Your task to perform on an android device: Open calendar and show me the second week of next month Image 0: 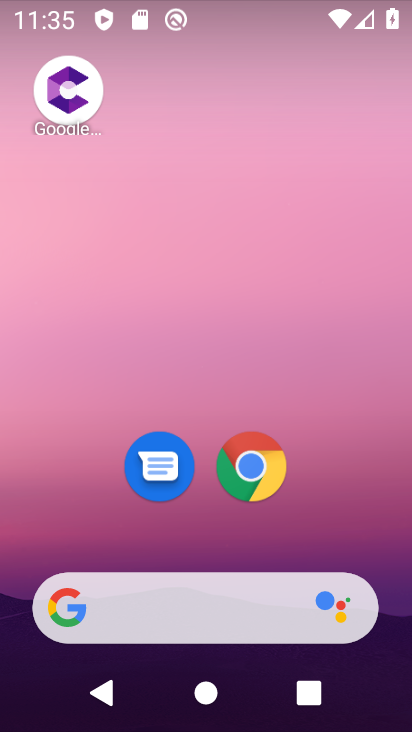
Step 0: drag from (330, 525) to (313, 137)
Your task to perform on an android device: Open calendar and show me the second week of next month Image 1: 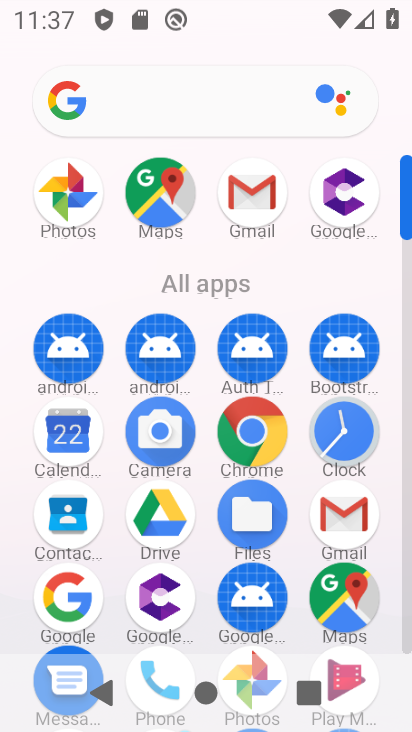
Step 1: click (93, 417)
Your task to perform on an android device: Open calendar and show me the second week of next month Image 2: 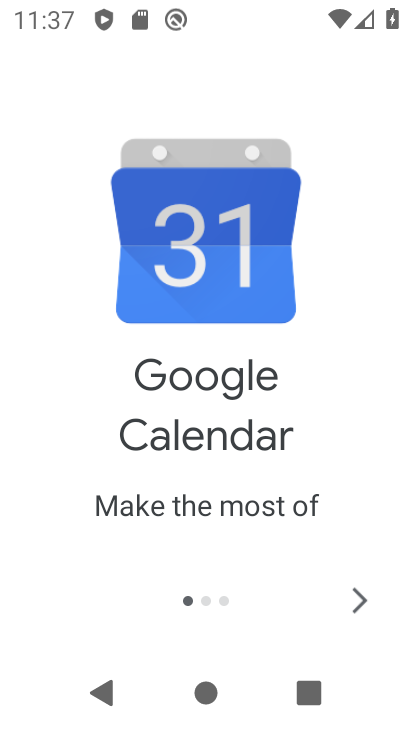
Step 2: click (361, 578)
Your task to perform on an android device: Open calendar and show me the second week of next month Image 3: 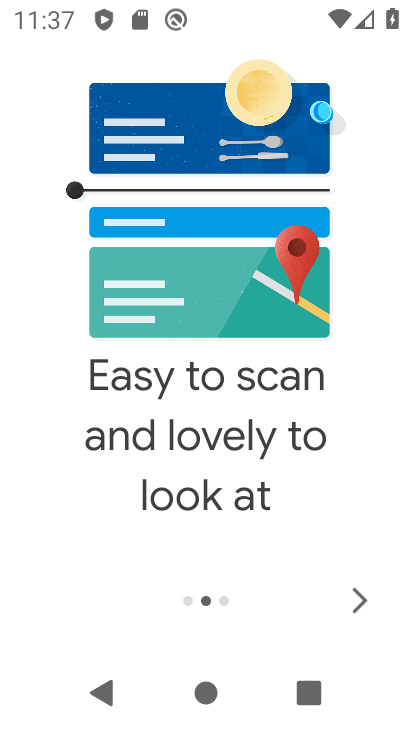
Step 3: click (361, 578)
Your task to perform on an android device: Open calendar and show me the second week of next month Image 4: 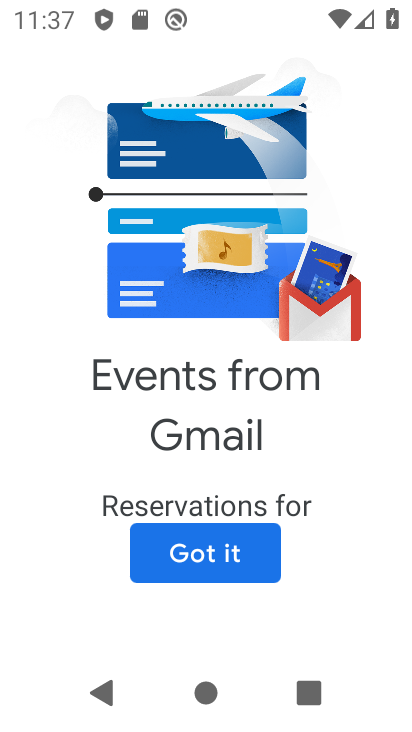
Step 4: click (234, 557)
Your task to perform on an android device: Open calendar and show me the second week of next month Image 5: 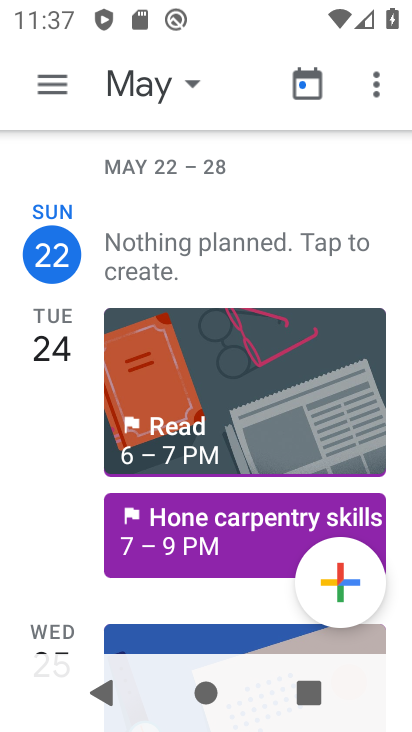
Step 5: click (191, 79)
Your task to perform on an android device: Open calendar and show me the second week of next month Image 6: 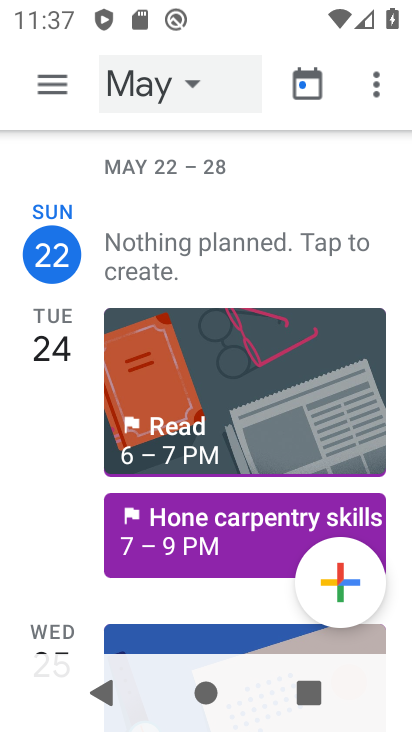
Step 6: drag from (215, 260) to (218, 296)
Your task to perform on an android device: Open calendar and show me the second week of next month Image 7: 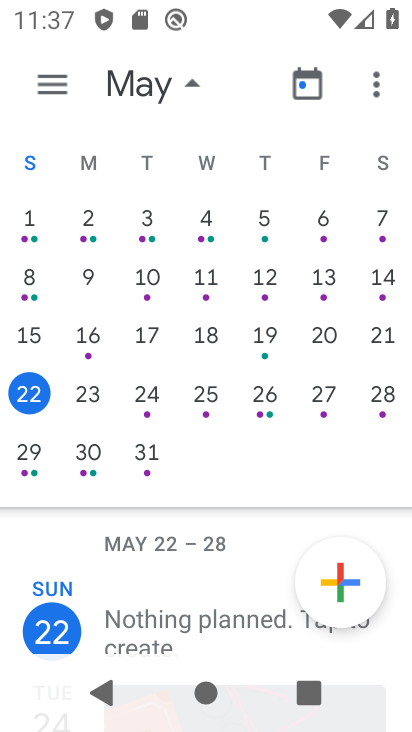
Step 7: click (99, 405)
Your task to perform on an android device: Open calendar and show me the second week of next month Image 8: 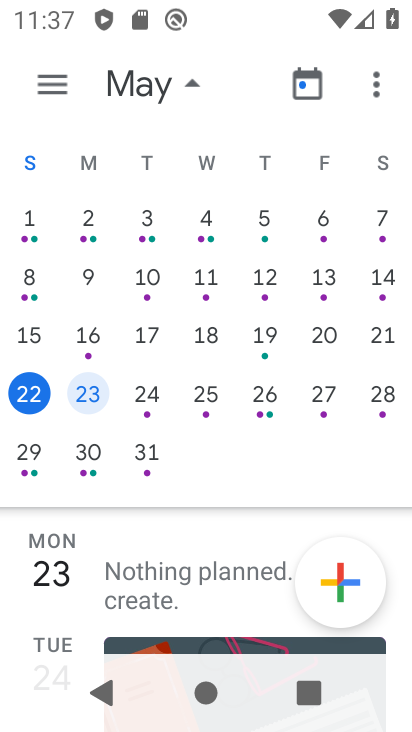
Step 8: drag from (379, 249) to (7, 347)
Your task to perform on an android device: Open calendar and show me the second week of next month Image 9: 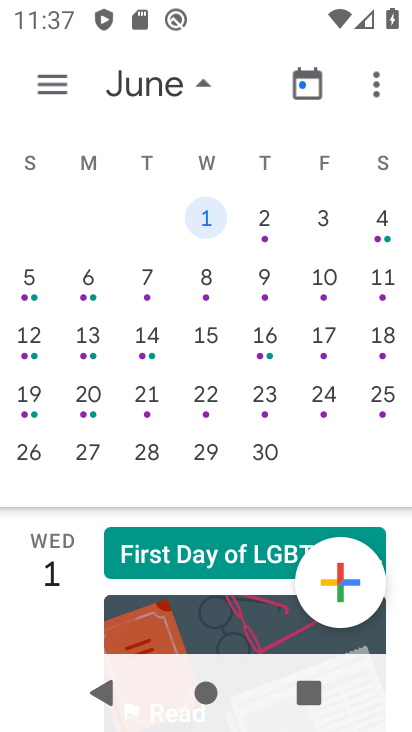
Step 9: click (196, 278)
Your task to perform on an android device: Open calendar and show me the second week of next month Image 10: 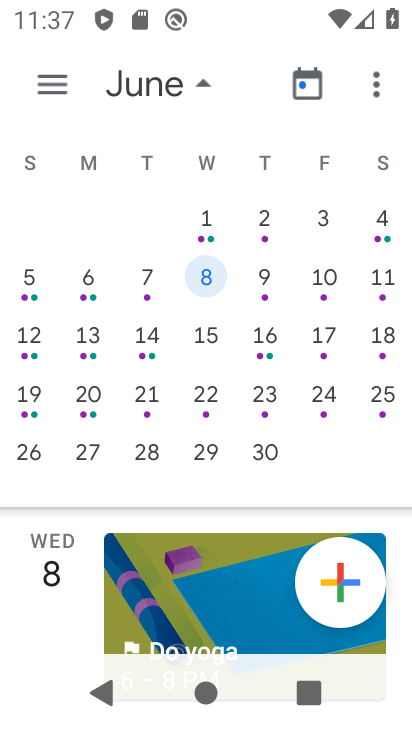
Step 10: task complete